Your task to perform on an android device: Open battery settings Image 0: 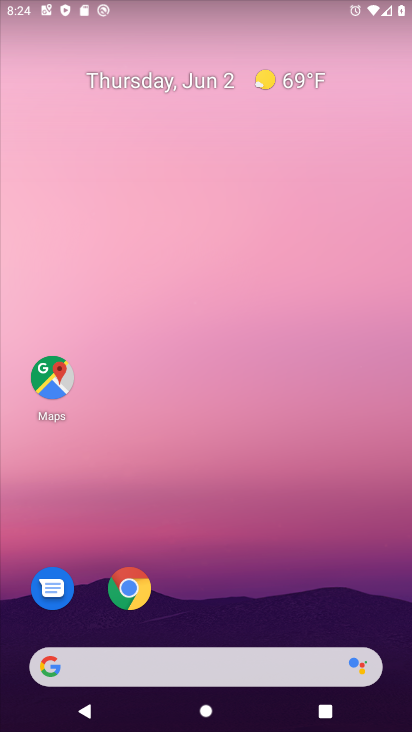
Step 0: drag from (241, 725) to (275, 77)
Your task to perform on an android device: Open battery settings Image 1: 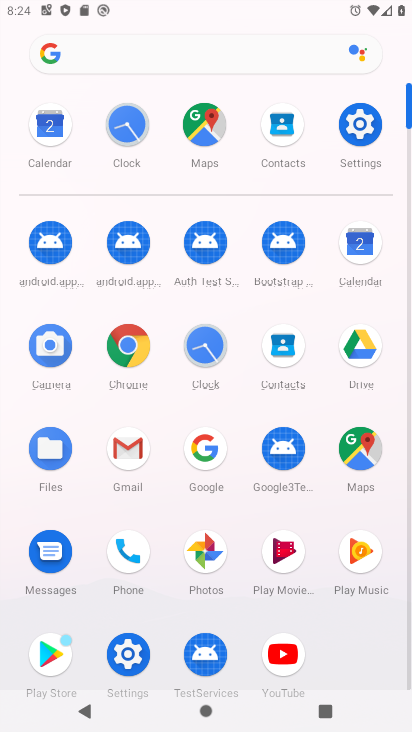
Step 1: click (361, 131)
Your task to perform on an android device: Open battery settings Image 2: 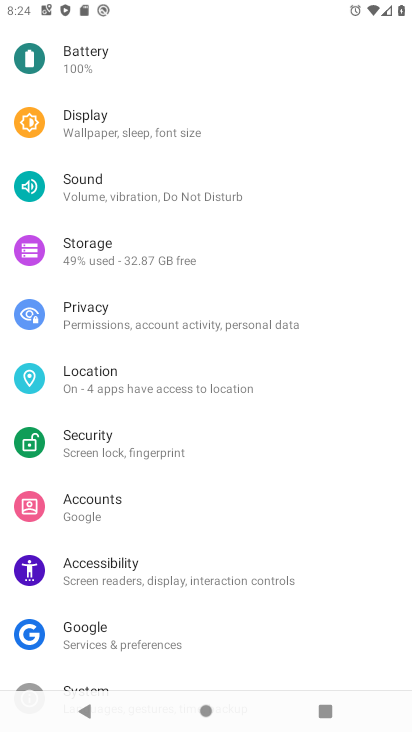
Step 2: click (87, 55)
Your task to perform on an android device: Open battery settings Image 3: 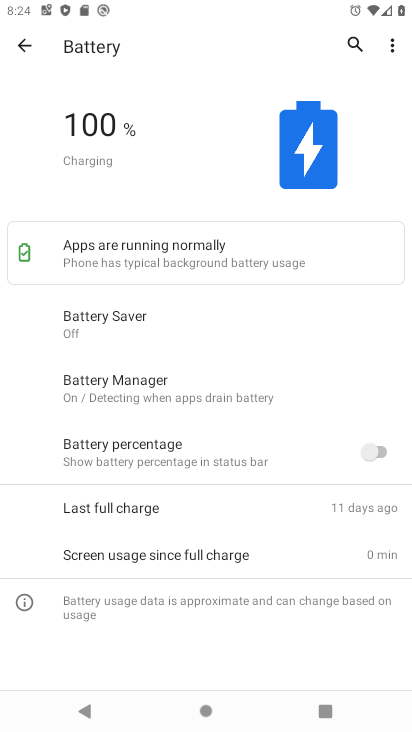
Step 3: task complete